Your task to perform on an android device: Open Google Maps Image 0: 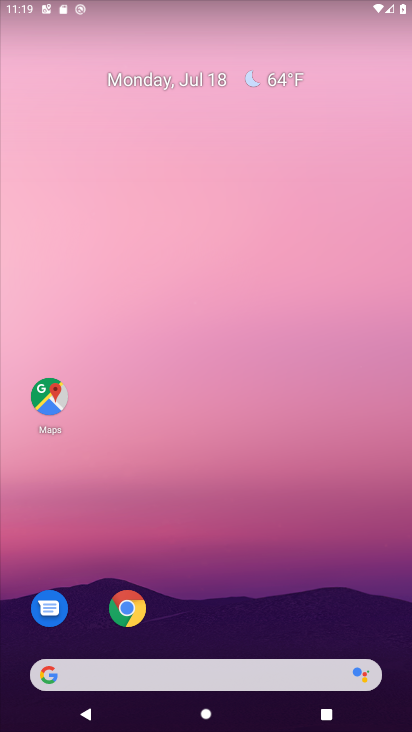
Step 0: drag from (285, 606) to (314, 1)
Your task to perform on an android device: Open Google Maps Image 1: 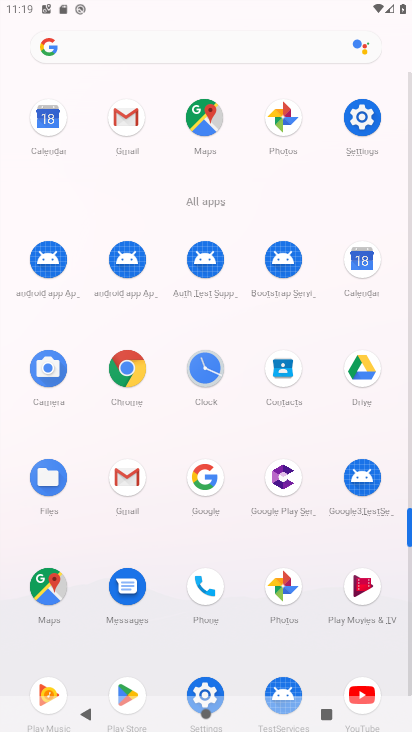
Step 1: click (55, 592)
Your task to perform on an android device: Open Google Maps Image 2: 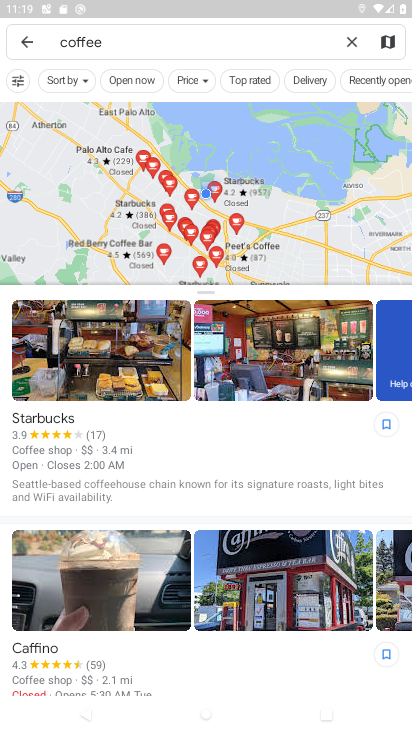
Step 2: task complete